Your task to perform on an android device: See recent photos Image 0: 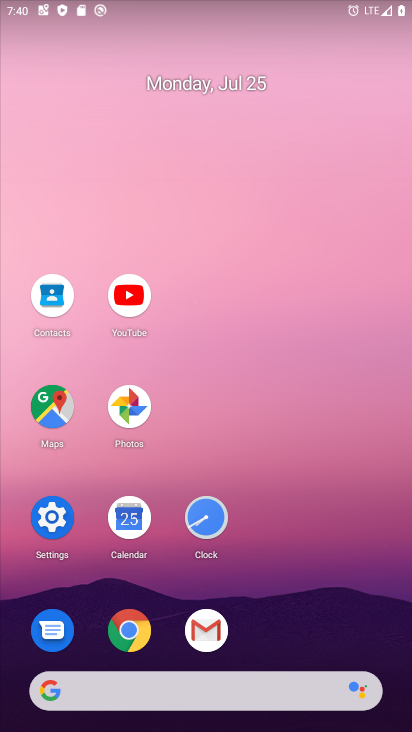
Step 0: click (129, 408)
Your task to perform on an android device: See recent photos Image 1: 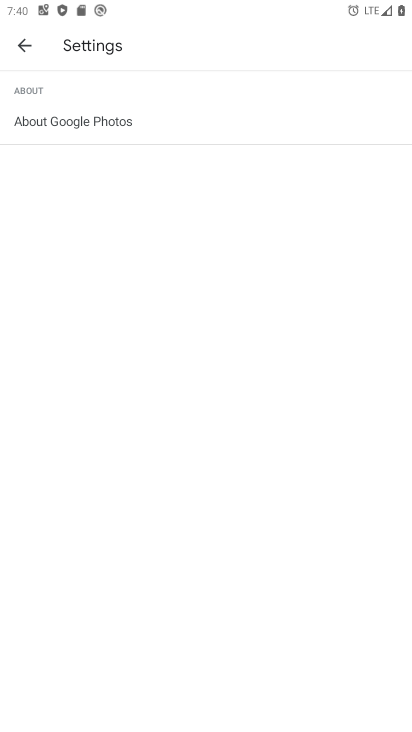
Step 1: click (28, 37)
Your task to perform on an android device: See recent photos Image 2: 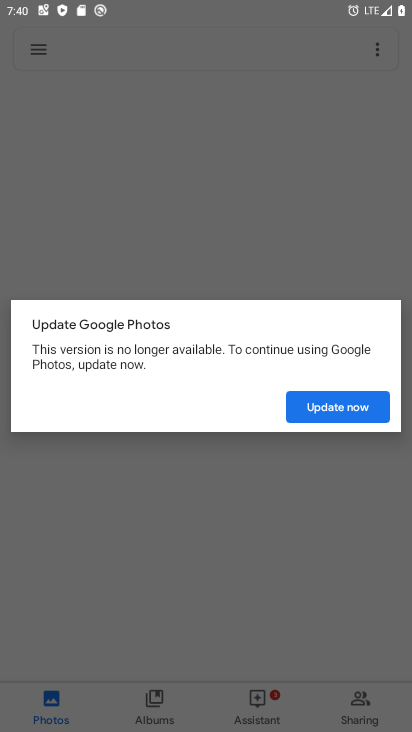
Step 2: click (306, 411)
Your task to perform on an android device: See recent photos Image 3: 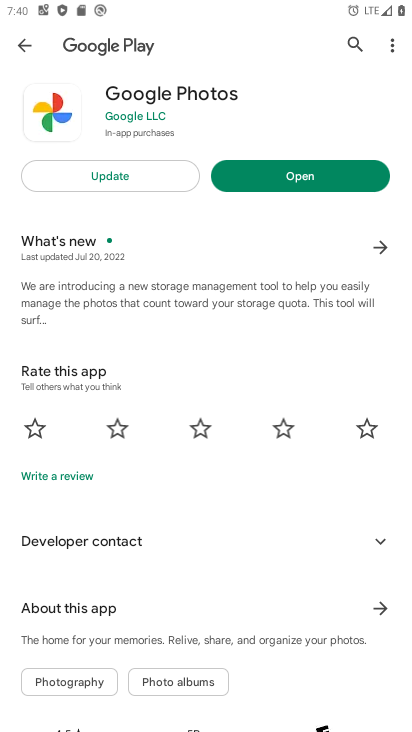
Step 3: click (132, 172)
Your task to perform on an android device: See recent photos Image 4: 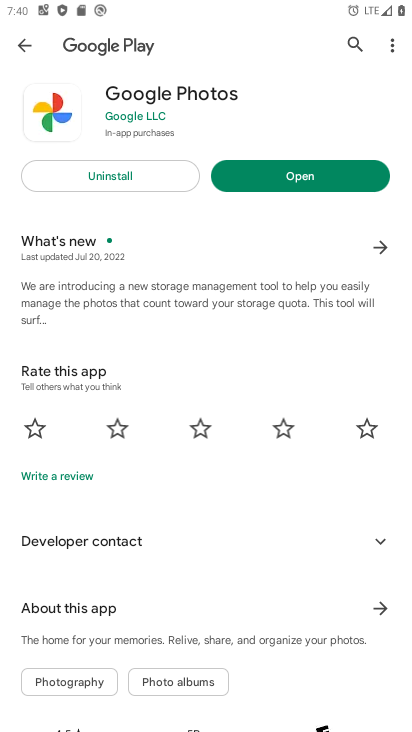
Step 4: click (289, 180)
Your task to perform on an android device: See recent photos Image 5: 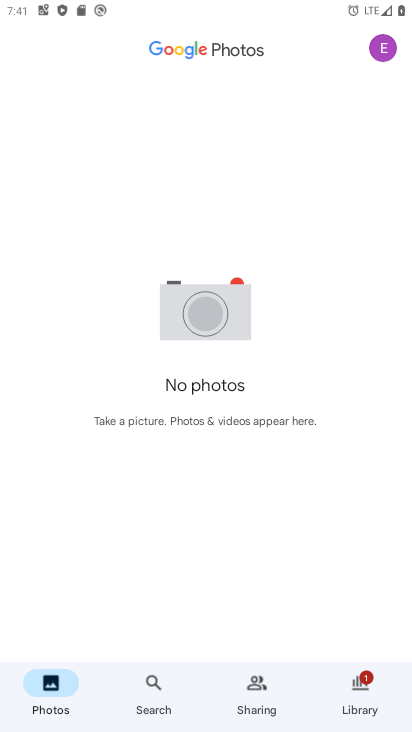
Step 5: task complete